Your task to perform on an android device: read, delete, or share a saved page in the chrome app Image 0: 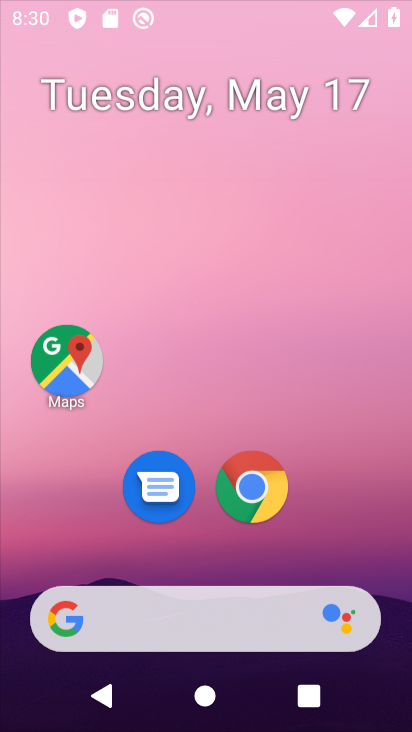
Step 0: drag from (285, 566) to (223, 156)
Your task to perform on an android device: read, delete, or share a saved page in the chrome app Image 1: 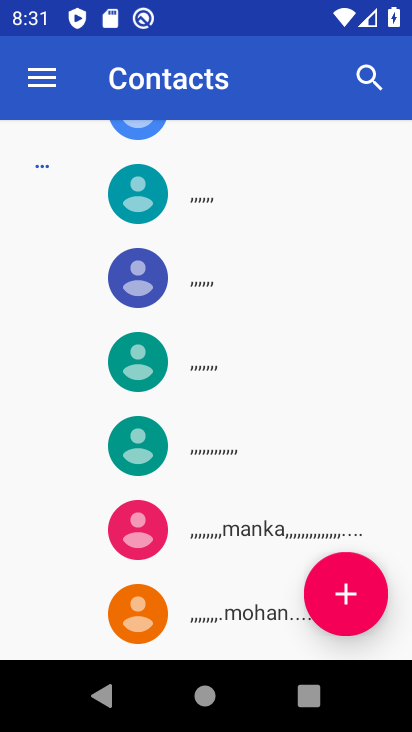
Step 1: press home button
Your task to perform on an android device: read, delete, or share a saved page in the chrome app Image 2: 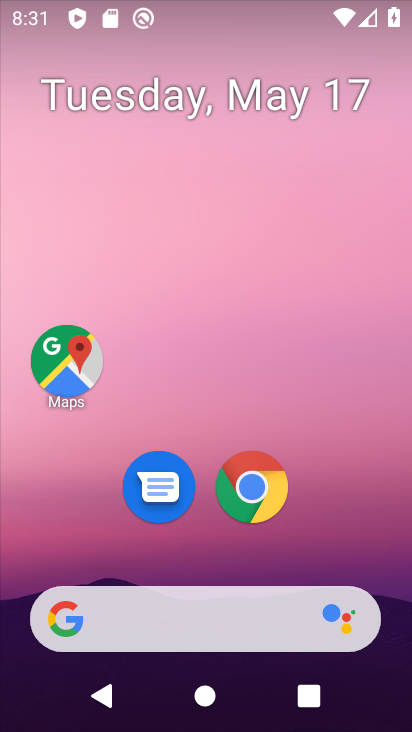
Step 2: drag from (183, 652) to (293, 209)
Your task to perform on an android device: read, delete, or share a saved page in the chrome app Image 3: 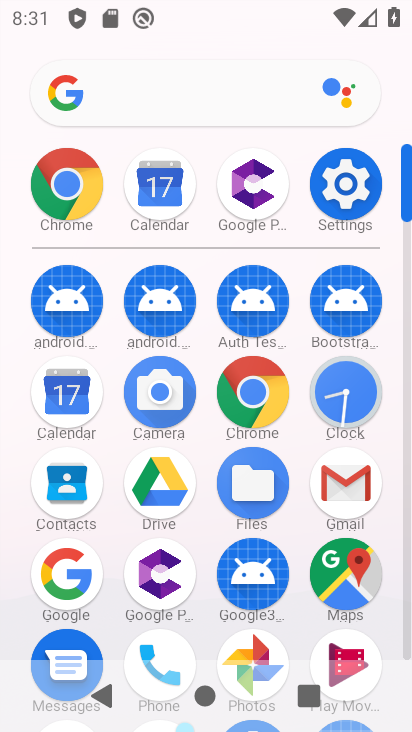
Step 3: click (86, 176)
Your task to perform on an android device: read, delete, or share a saved page in the chrome app Image 4: 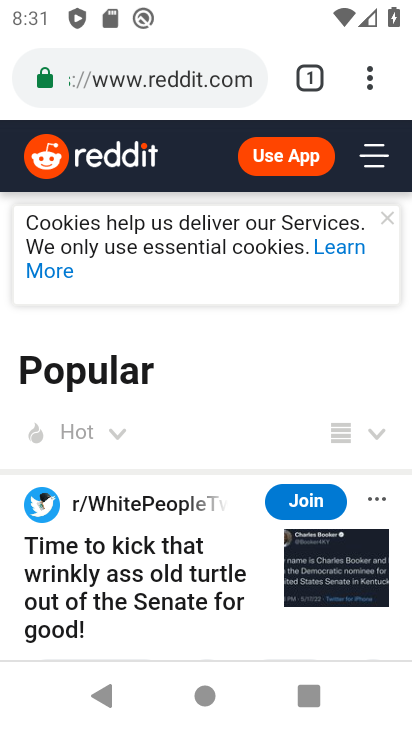
Step 4: click (364, 90)
Your task to perform on an android device: read, delete, or share a saved page in the chrome app Image 5: 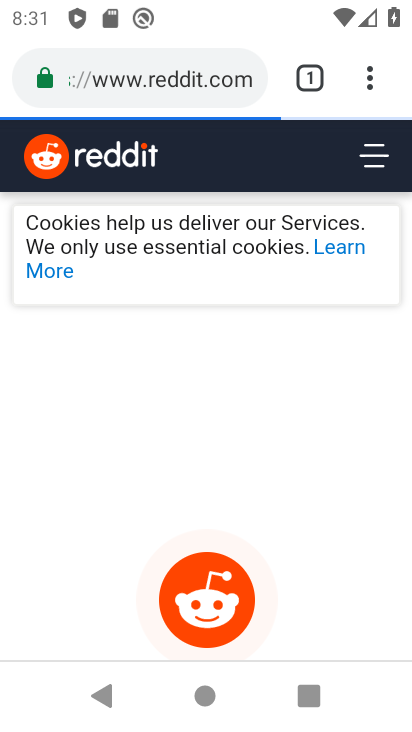
Step 5: click (374, 80)
Your task to perform on an android device: read, delete, or share a saved page in the chrome app Image 6: 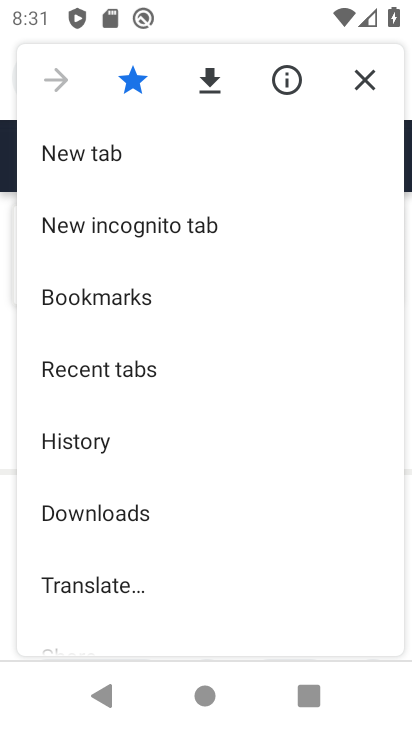
Step 6: drag from (129, 609) to (142, 403)
Your task to perform on an android device: read, delete, or share a saved page in the chrome app Image 7: 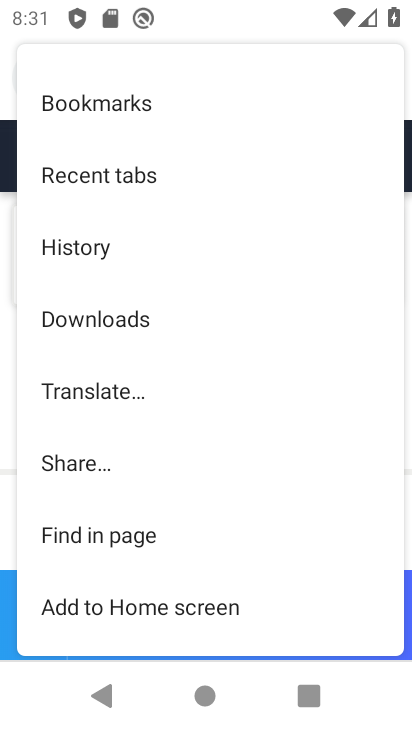
Step 7: click (89, 467)
Your task to perform on an android device: read, delete, or share a saved page in the chrome app Image 8: 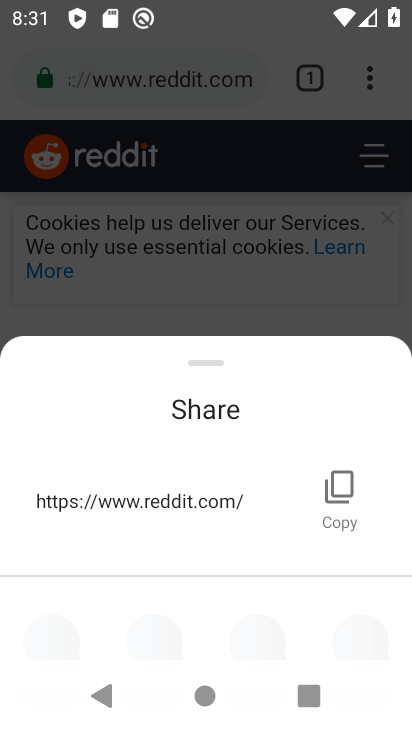
Step 8: task complete